Your task to perform on an android device: install app "LiveIn - Share Your Moment" Image 0: 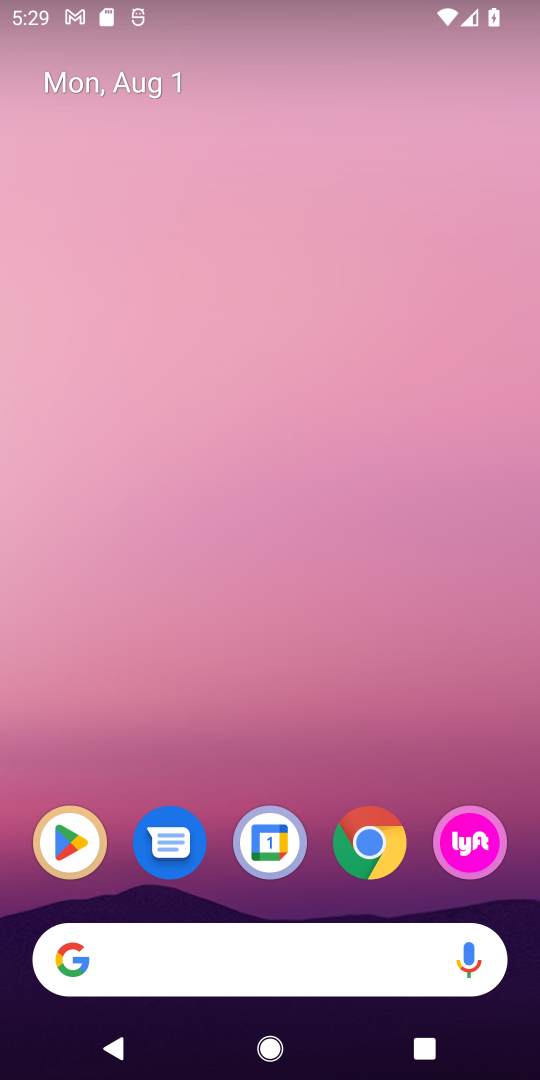
Step 0: drag from (351, 991) to (240, 294)
Your task to perform on an android device: install app "LiveIn - Share Your Moment" Image 1: 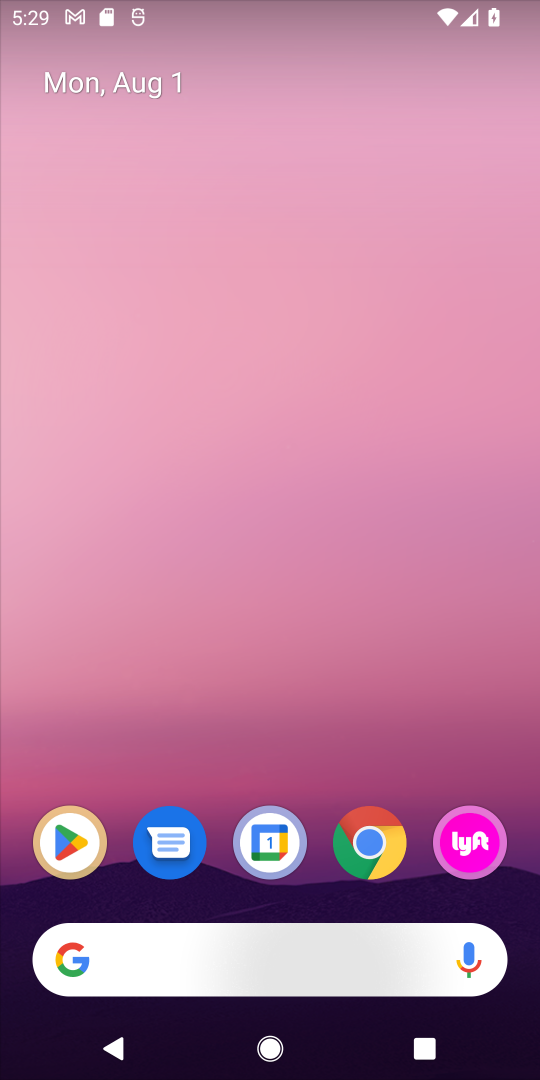
Step 1: drag from (312, 591) to (248, 264)
Your task to perform on an android device: install app "LiveIn - Share Your Moment" Image 2: 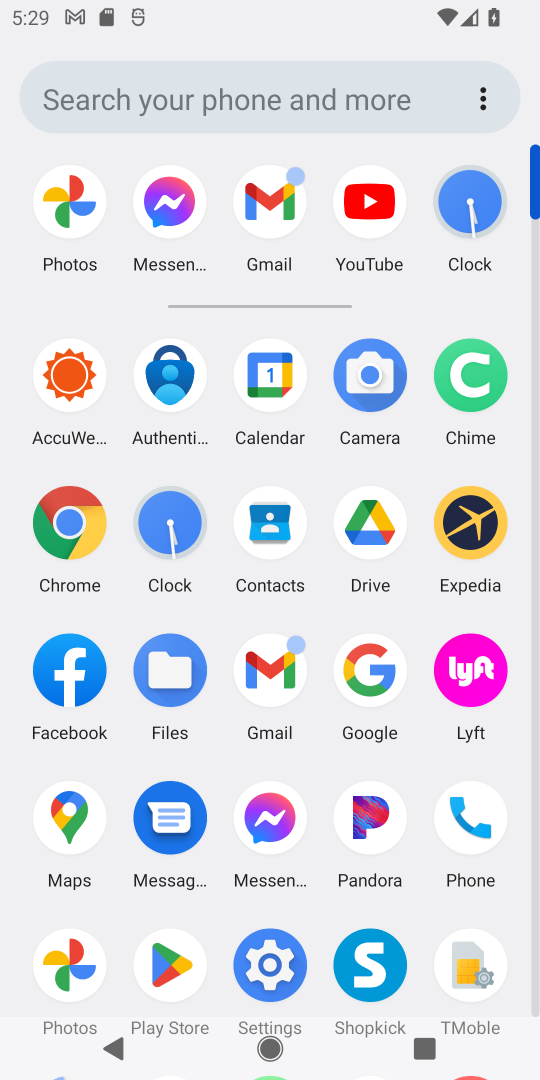
Step 2: drag from (368, 639) to (312, 278)
Your task to perform on an android device: install app "LiveIn - Share Your Moment" Image 3: 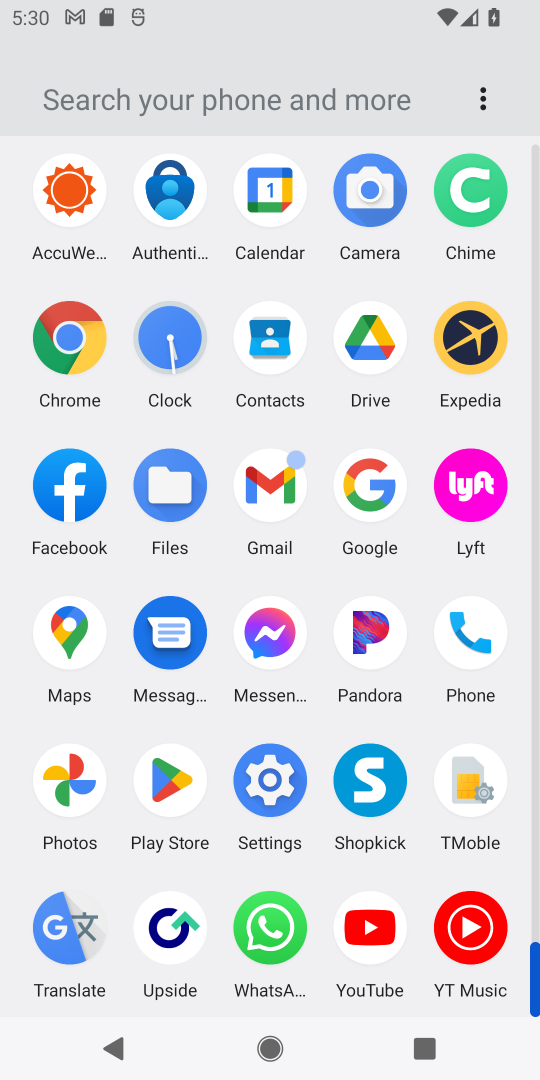
Step 3: click (172, 779)
Your task to perform on an android device: install app "LiveIn - Share Your Moment" Image 4: 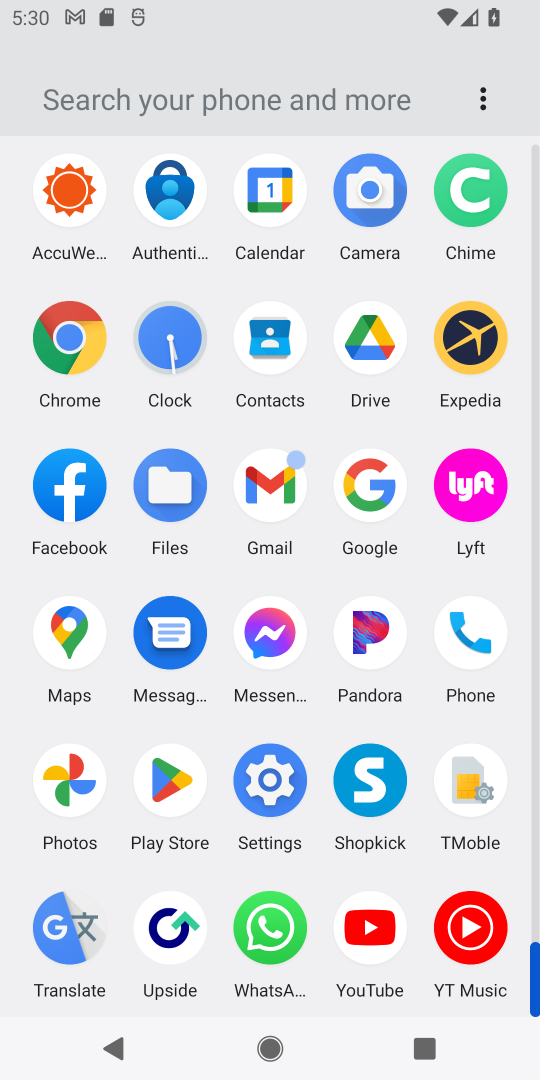
Step 4: click (177, 783)
Your task to perform on an android device: install app "LiveIn - Share Your Moment" Image 5: 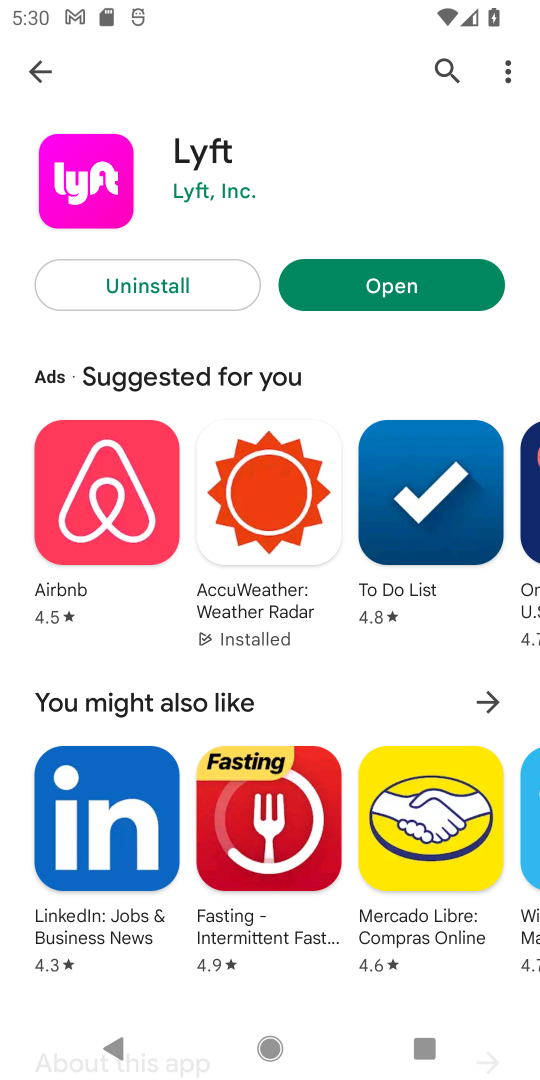
Step 5: click (46, 67)
Your task to perform on an android device: install app "LiveIn - Share Your Moment" Image 6: 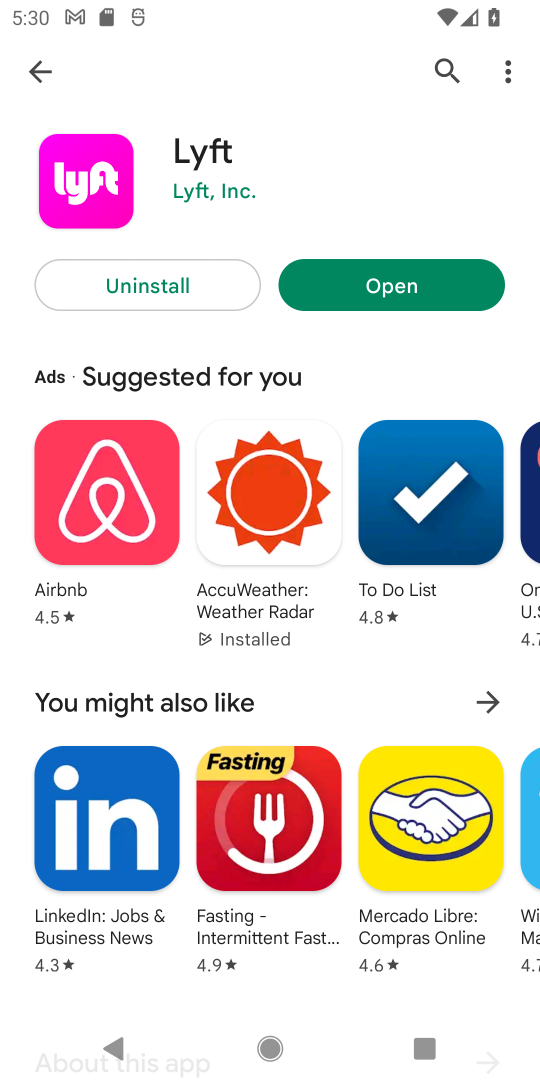
Step 6: click (47, 78)
Your task to perform on an android device: install app "LiveIn - Share Your Moment" Image 7: 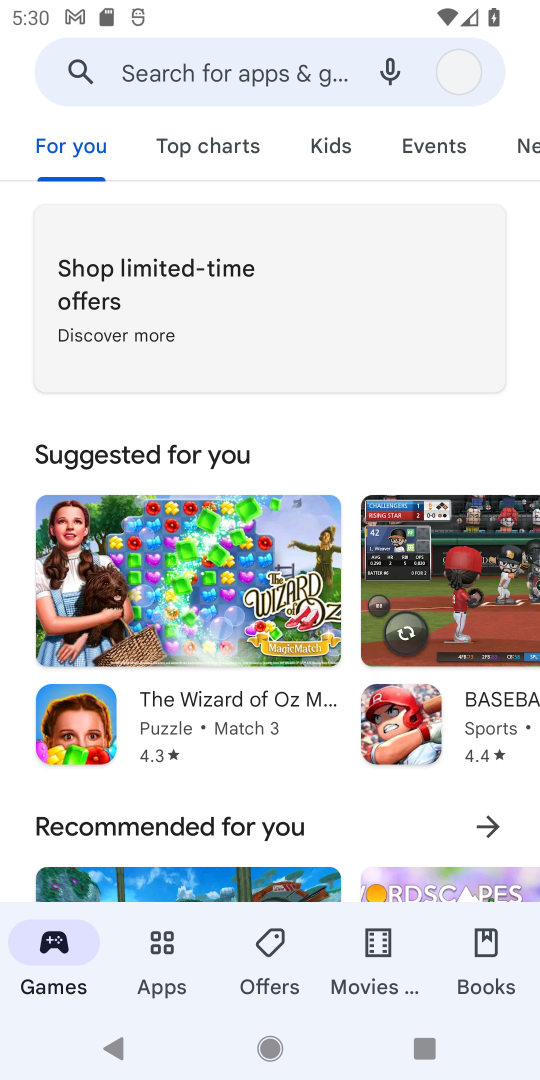
Step 7: click (51, 84)
Your task to perform on an android device: install app "LiveIn - Share Your Moment" Image 8: 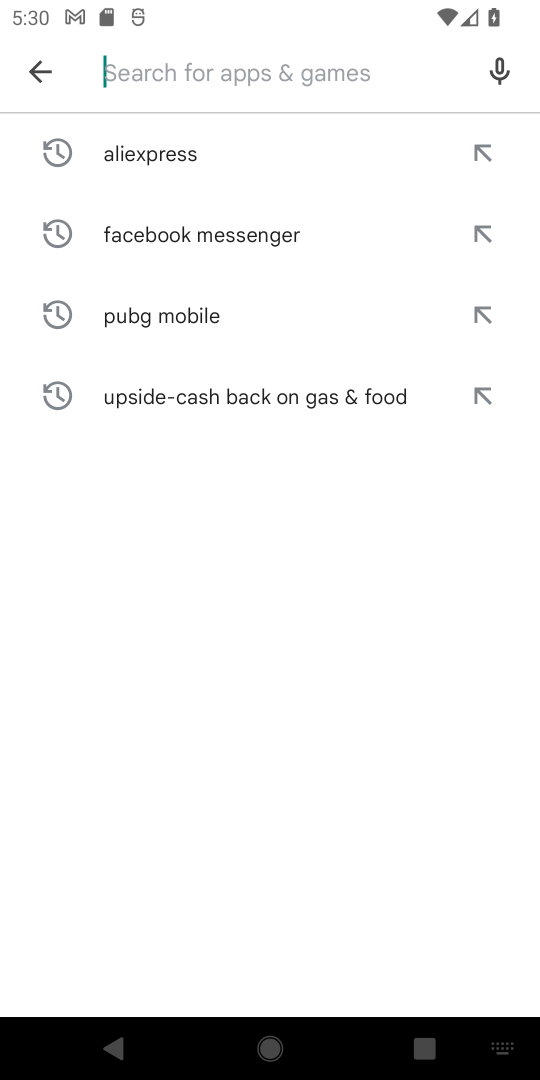
Step 8: click (172, 68)
Your task to perform on an android device: install app "LiveIn - Share Your Moment" Image 9: 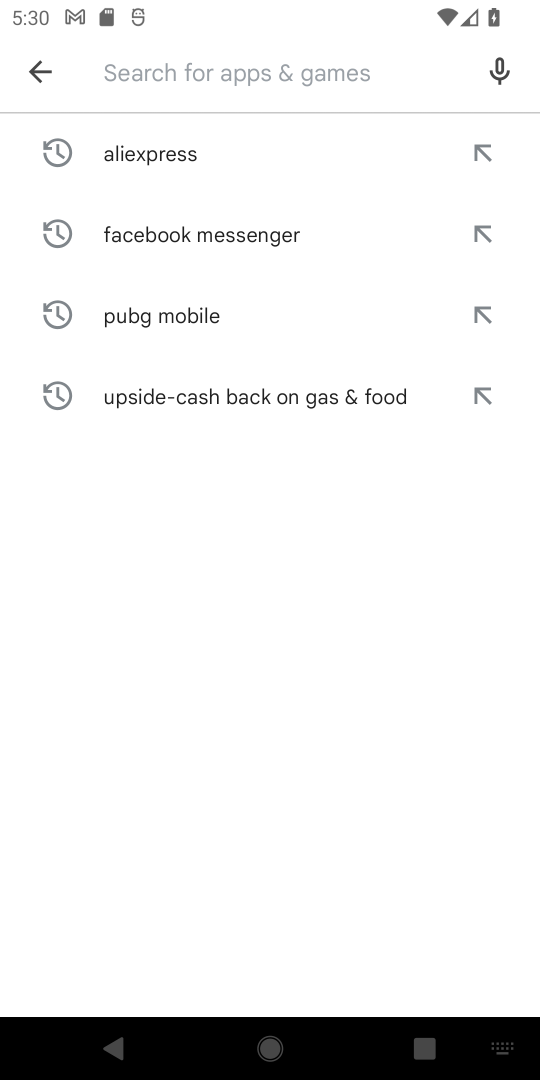
Step 9: click (172, 68)
Your task to perform on an android device: install app "LiveIn - Share Your Moment" Image 10: 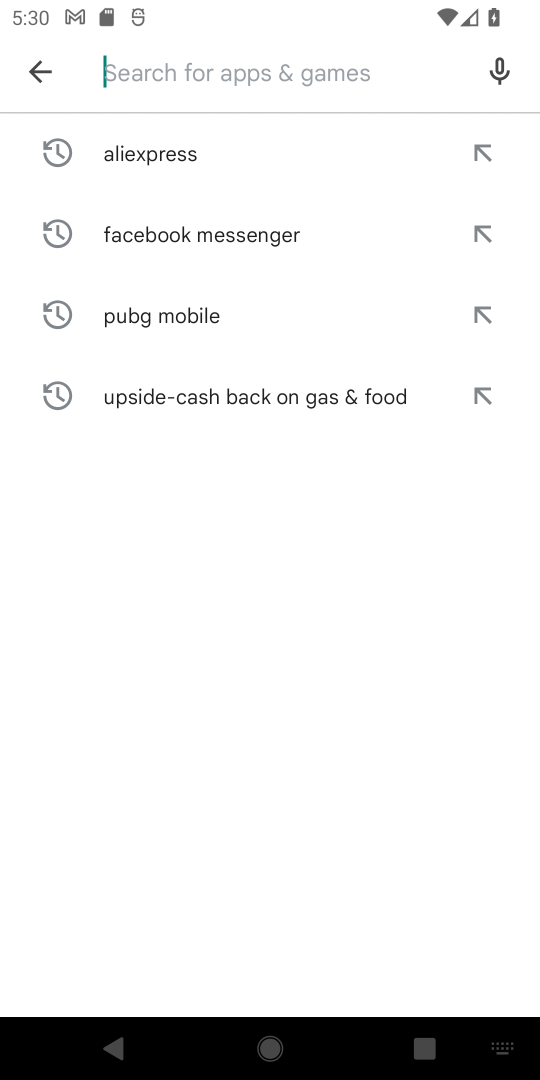
Step 10: click (172, 68)
Your task to perform on an android device: install app "LiveIn - Share Your Moment" Image 11: 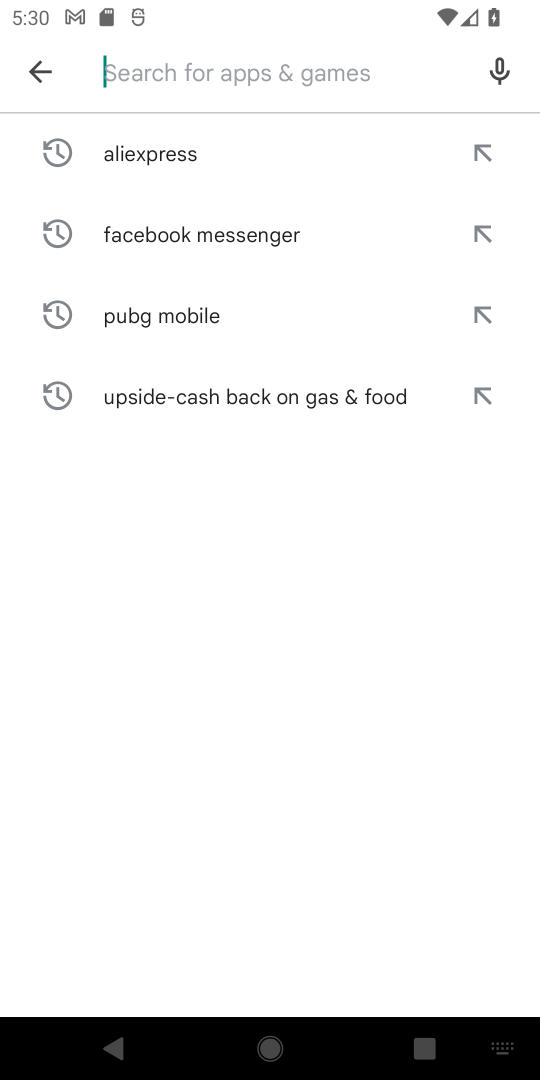
Step 11: type "LiveIn - Share Your Moment"
Your task to perform on an android device: install app "LiveIn - Share Your Moment" Image 12: 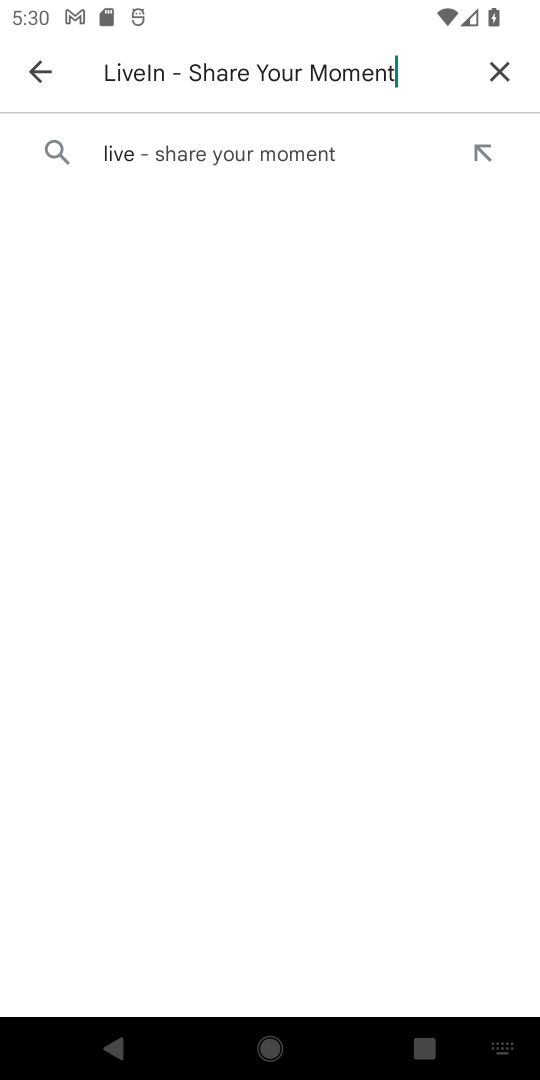
Step 12: click (484, 145)
Your task to perform on an android device: install app "LiveIn - Share Your Moment" Image 13: 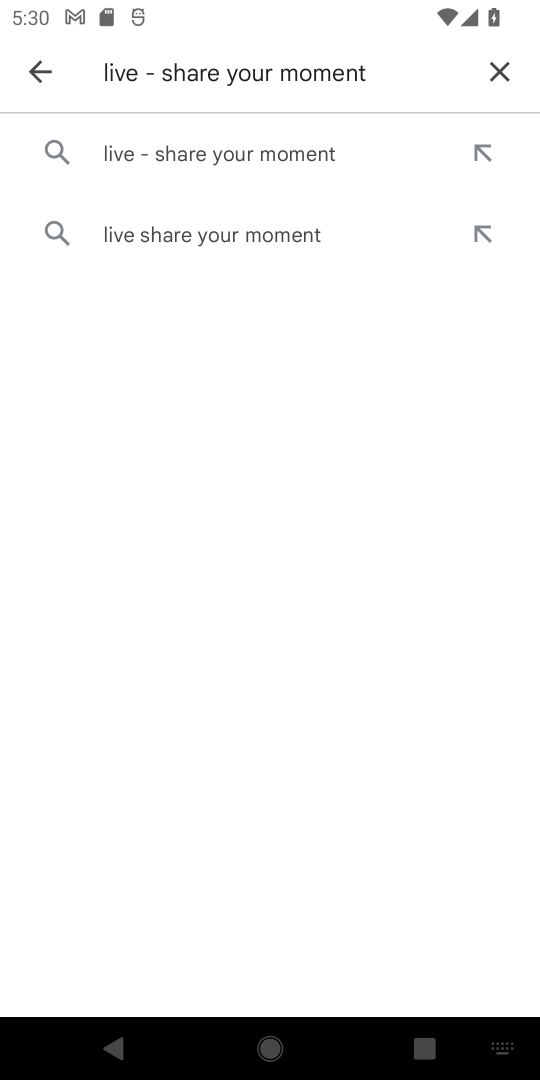
Step 13: click (288, 159)
Your task to perform on an android device: install app "LiveIn - Share Your Moment" Image 14: 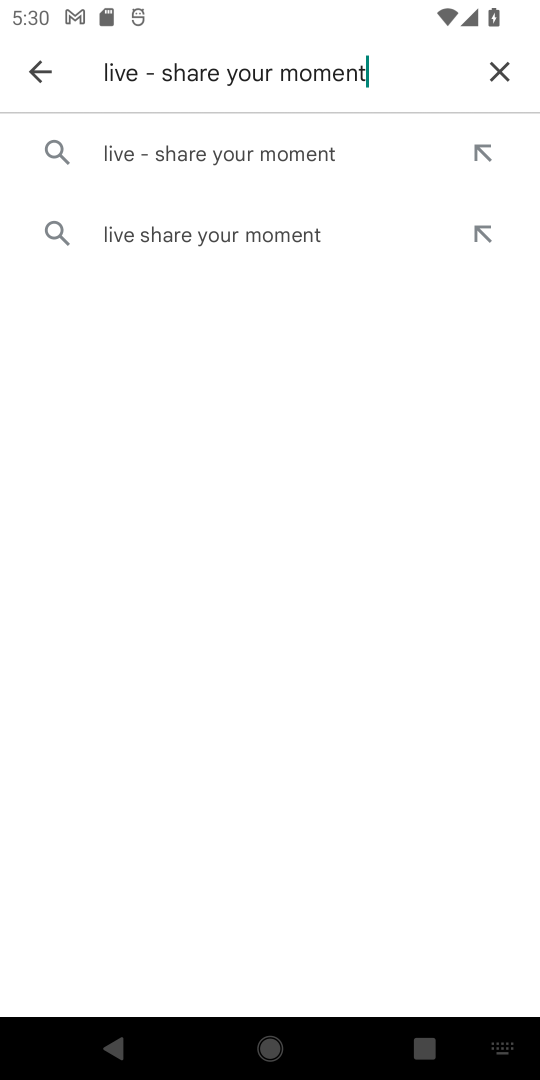
Step 14: click (286, 160)
Your task to perform on an android device: install app "LiveIn - Share Your Moment" Image 15: 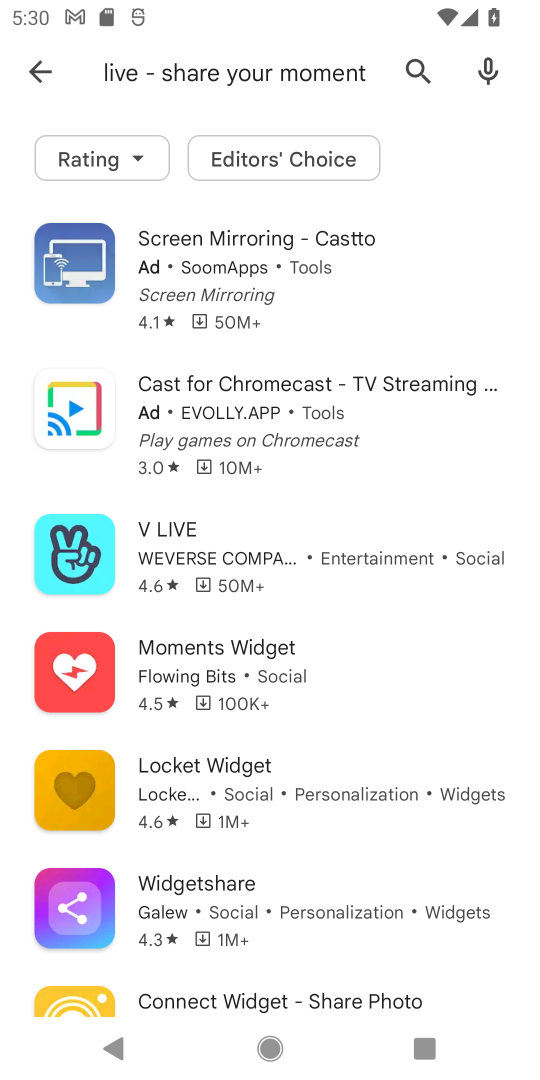
Step 15: task complete